Your task to perform on an android device: Show me popular videos on Youtube Image 0: 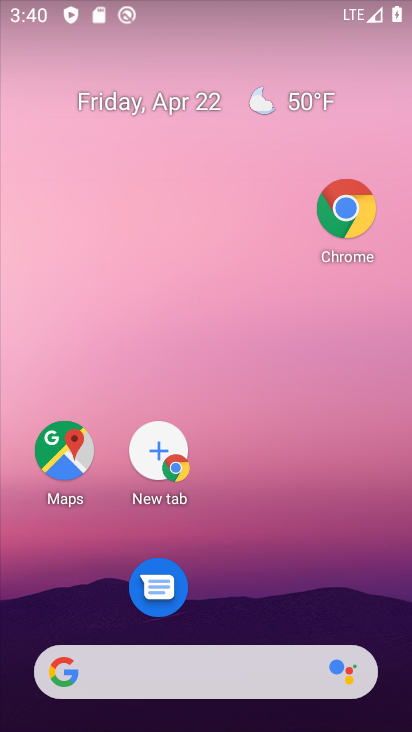
Step 0: drag from (212, 451) to (140, 90)
Your task to perform on an android device: Show me popular videos on Youtube Image 1: 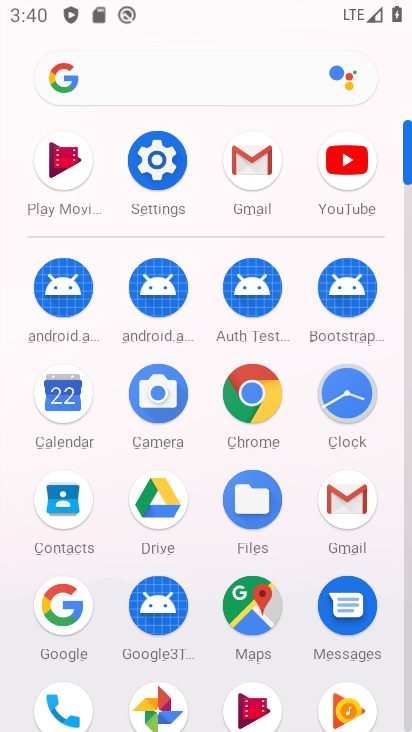
Step 1: click (359, 182)
Your task to perform on an android device: Show me popular videos on Youtube Image 2: 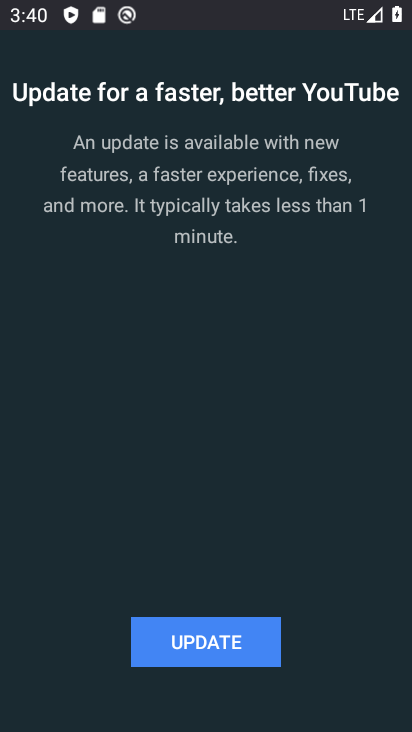
Step 2: click (217, 658)
Your task to perform on an android device: Show me popular videos on Youtube Image 3: 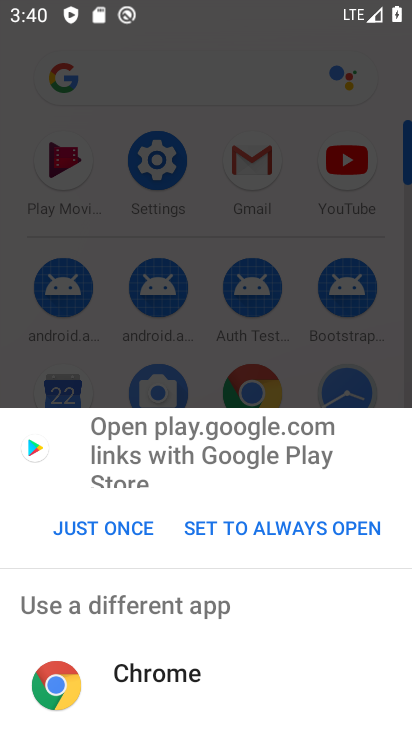
Step 3: click (111, 525)
Your task to perform on an android device: Show me popular videos on Youtube Image 4: 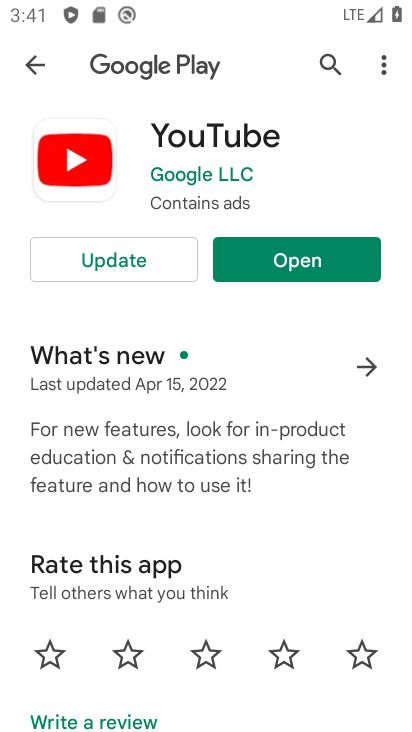
Step 4: click (290, 276)
Your task to perform on an android device: Show me popular videos on Youtube Image 5: 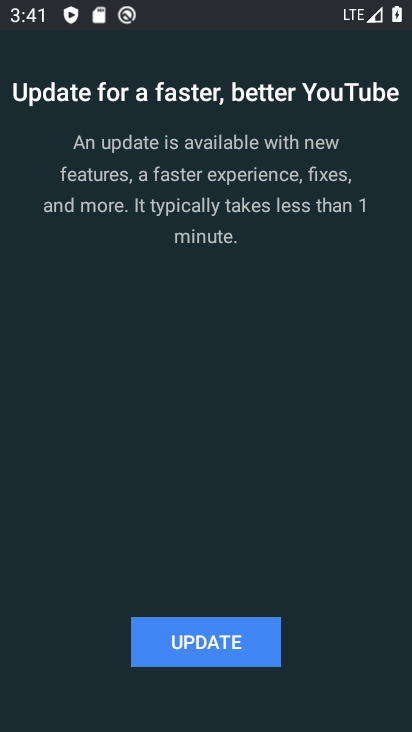
Step 5: task complete